Your task to perform on an android device: choose inbox layout in the gmail app Image 0: 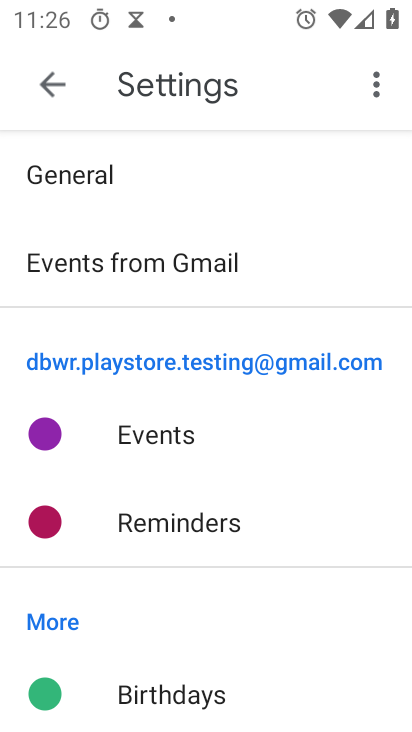
Step 0: press home button
Your task to perform on an android device: choose inbox layout in the gmail app Image 1: 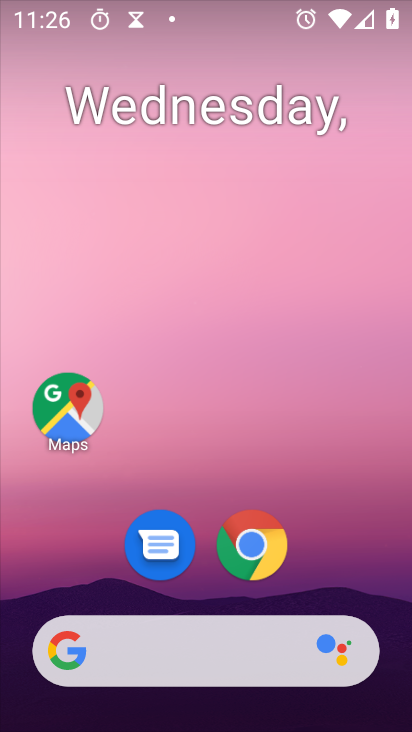
Step 1: drag from (166, 647) to (260, 196)
Your task to perform on an android device: choose inbox layout in the gmail app Image 2: 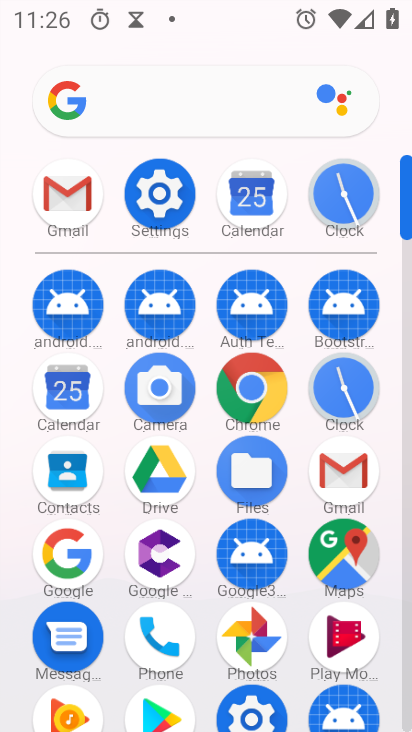
Step 2: click (73, 200)
Your task to perform on an android device: choose inbox layout in the gmail app Image 3: 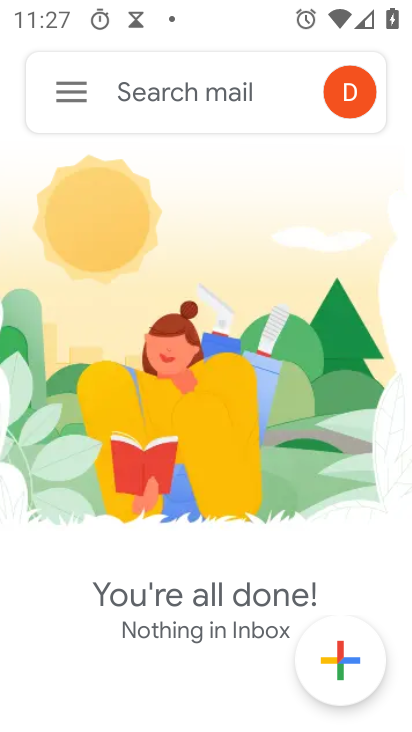
Step 3: click (70, 93)
Your task to perform on an android device: choose inbox layout in the gmail app Image 4: 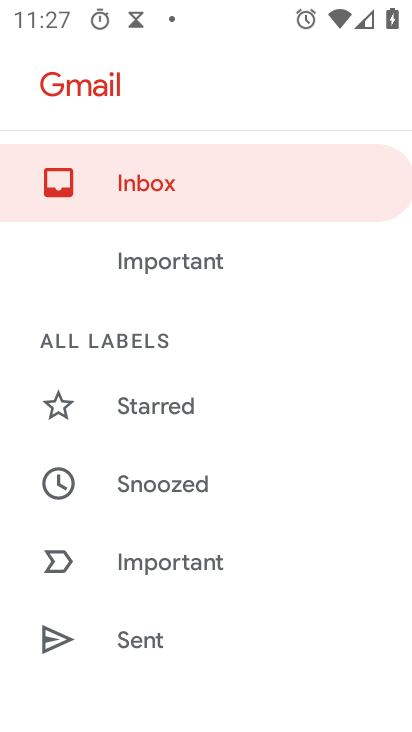
Step 4: drag from (217, 661) to (329, 168)
Your task to perform on an android device: choose inbox layout in the gmail app Image 5: 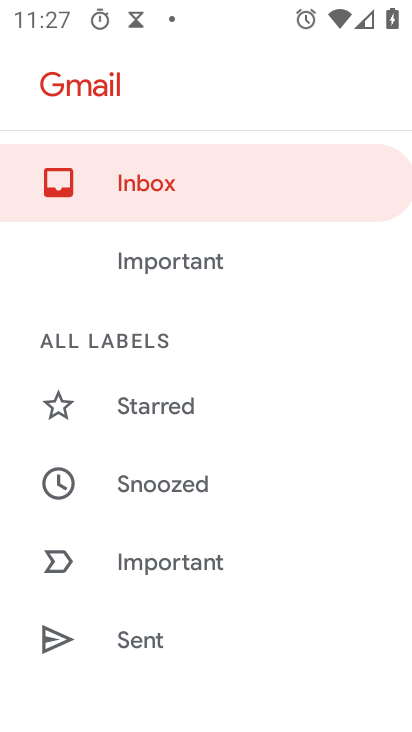
Step 5: drag from (234, 595) to (275, 106)
Your task to perform on an android device: choose inbox layout in the gmail app Image 6: 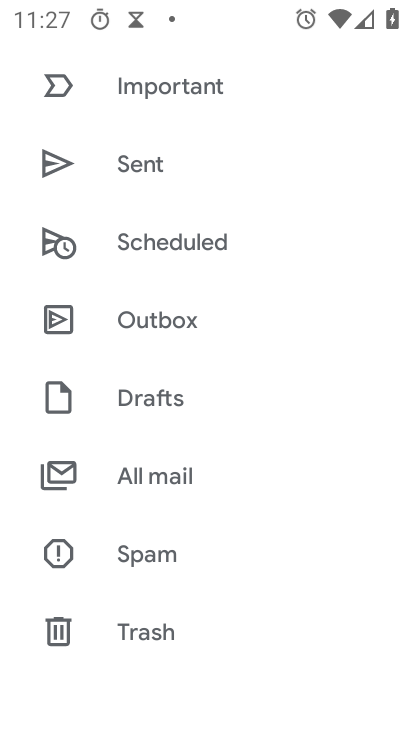
Step 6: drag from (197, 564) to (255, 102)
Your task to perform on an android device: choose inbox layout in the gmail app Image 7: 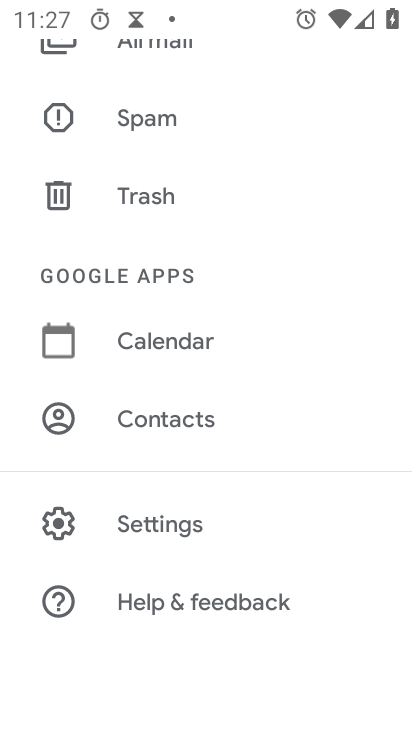
Step 7: click (149, 522)
Your task to perform on an android device: choose inbox layout in the gmail app Image 8: 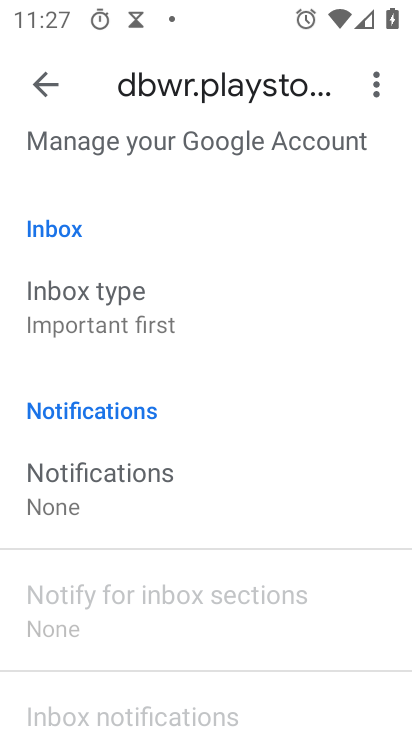
Step 8: drag from (309, 215) to (276, 468)
Your task to perform on an android device: choose inbox layout in the gmail app Image 9: 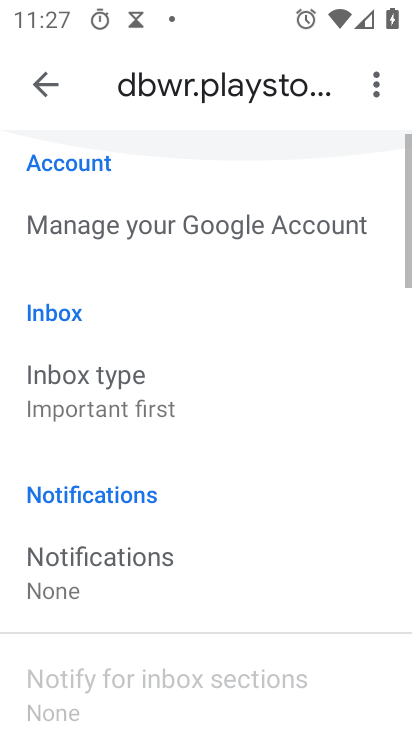
Step 9: click (117, 311)
Your task to perform on an android device: choose inbox layout in the gmail app Image 10: 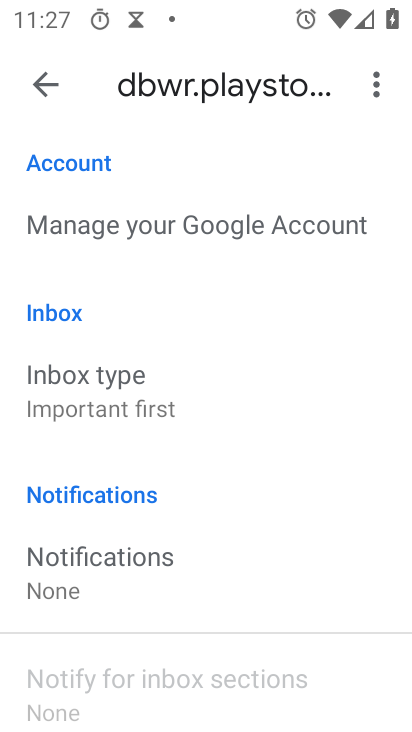
Step 10: click (113, 359)
Your task to perform on an android device: choose inbox layout in the gmail app Image 11: 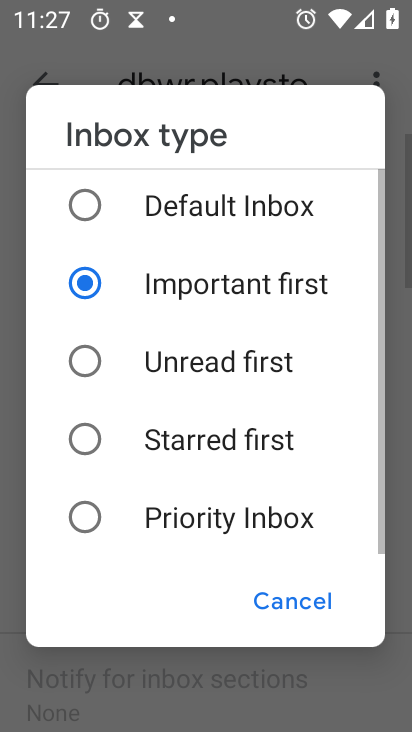
Step 11: click (81, 365)
Your task to perform on an android device: choose inbox layout in the gmail app Image 12: 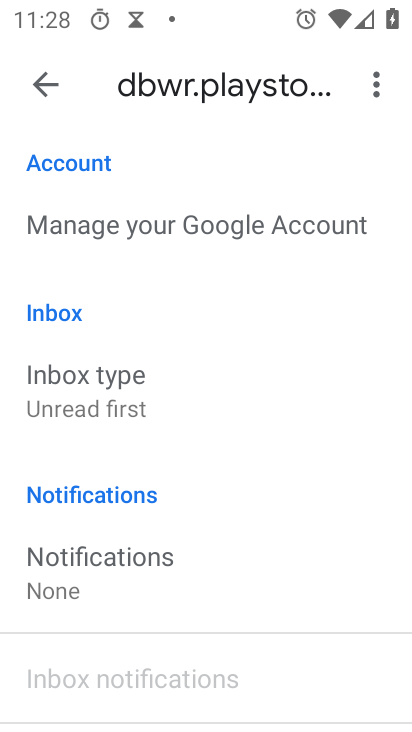
Step 12: task complete